Your task to perform on an android device: Search for "razer thresher" on walmart.com, select the first entry, and add it to the cart. Image 0: 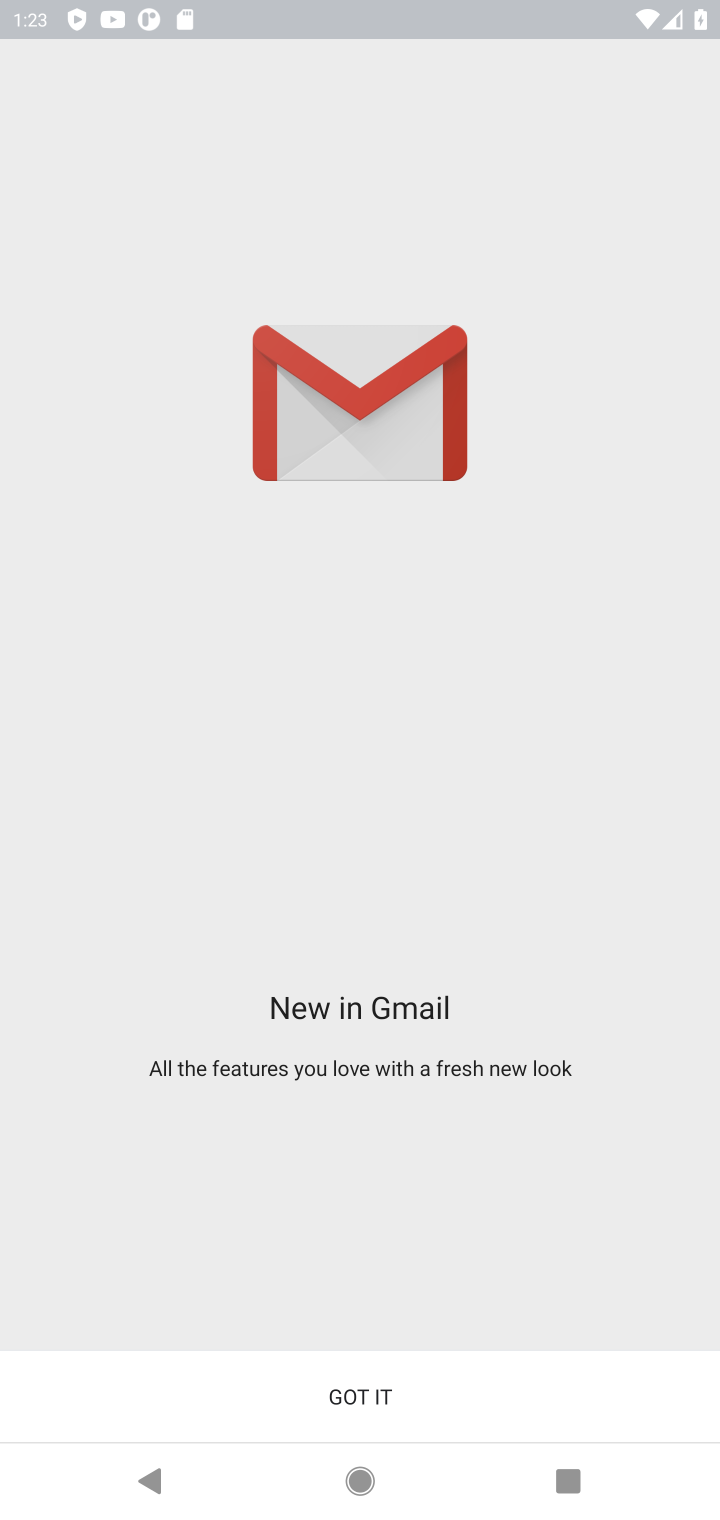
Step 0: task complete